Your task to perform on an android device: turn off data saver in the chrome app Image 0: 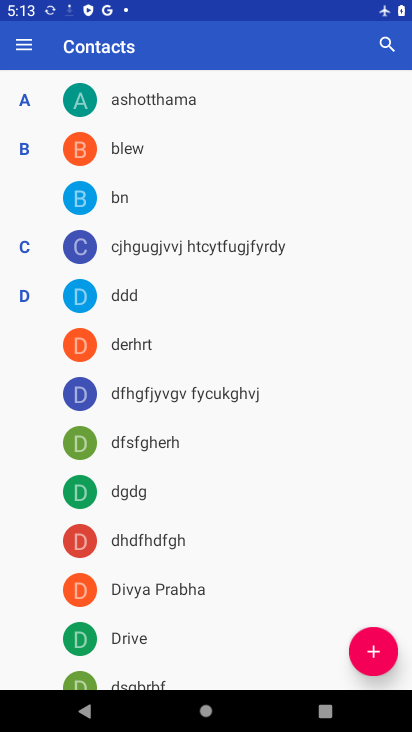
Step 0: press home button
Your task to perform on an android device: turn off data saver in the chrome app Image 1: 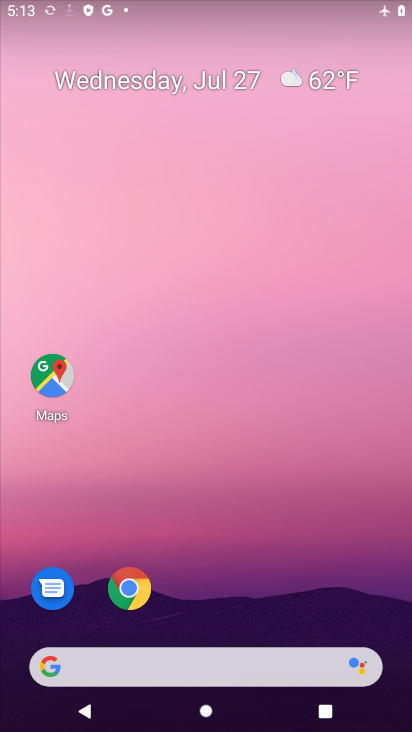
Step 1: click (189, 40)
Your task to perform on an android device: turn off data saver in the chrome app Image 2: 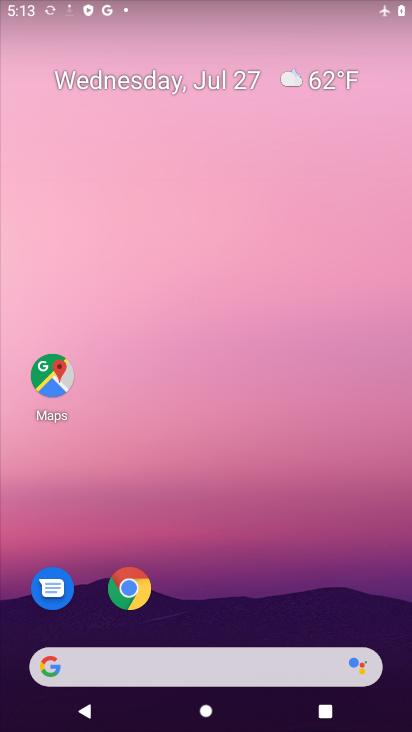
Step 2: click (138, 589)
Your task to perform on an android device: turn off data saver in the chrome app Image 3: 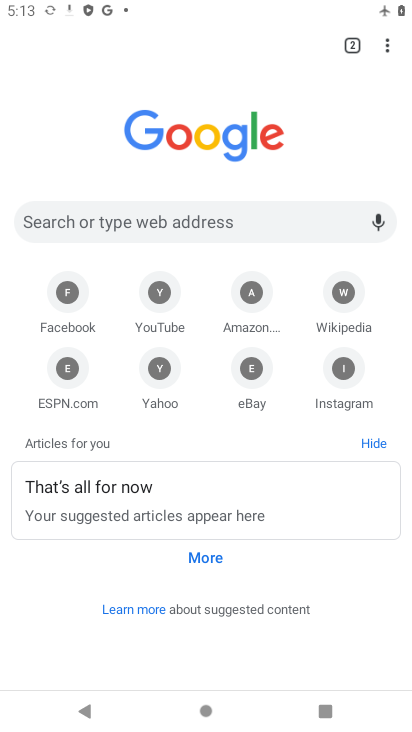
Step 3: click (384, 48)
Your task to perform on an android device: turn off data saver in the chrome app Image 4: 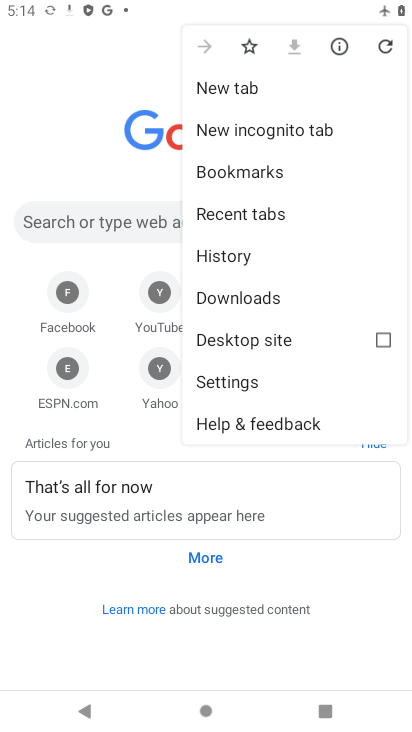
Step 4: click (229, 381)
Your task to perform on an android device: turn off data saver in the chrome app Image 5: 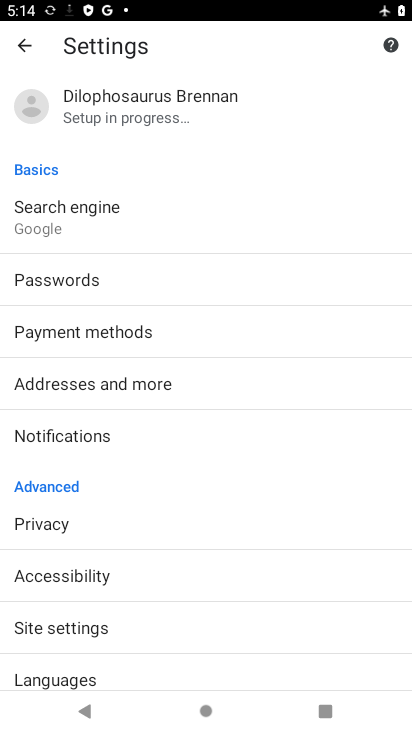
Step 5: click (64, 621)
Your task to perform on an android device: turn off data saver in the chrome app Image 6: 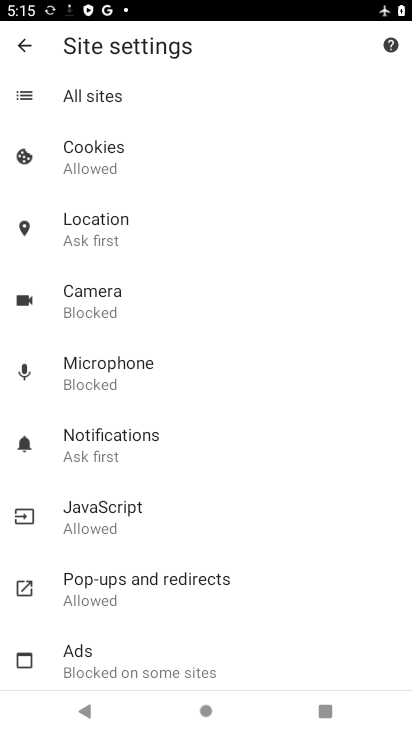
Step 6: drag from (111, 591) to (189, 317)
Your task to perform on an android device: turn off data saver in the chrome app Image 7: 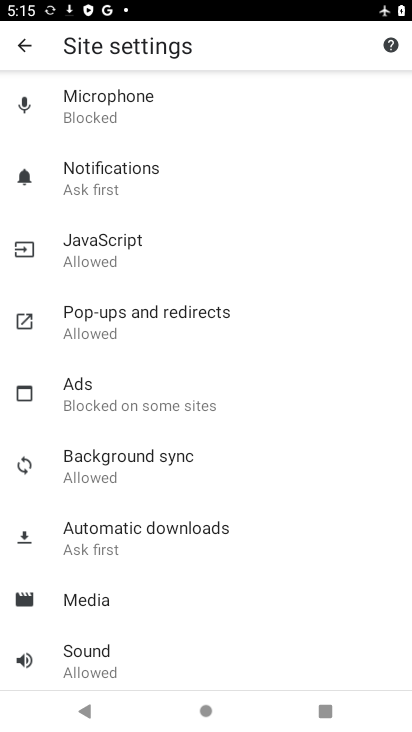
Step 7: drag from (138, 529) to (167, 274)
Your task to perform on an android device: turn off data saver in the chrome app Image 8: 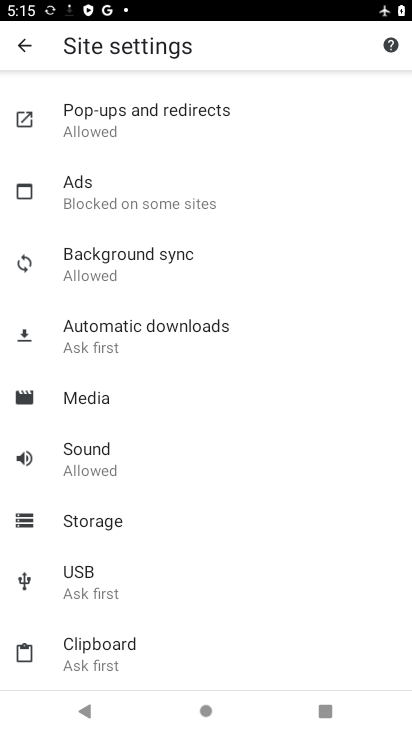
Step 8: drag from (167, 584) to (195, 301)
Your task to perform on an android device: turn off data saver in the chrome app Image 9: 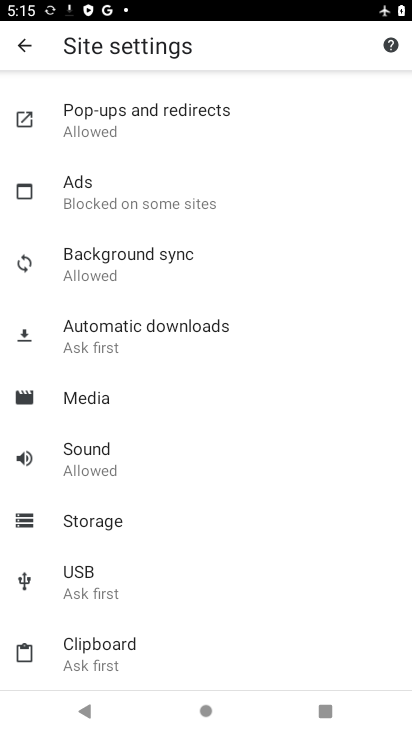
Step 9: drag from (200, 320) to (179, 685)
Your task to perform on an android device: turn off data saver in the chrome app Image 10: 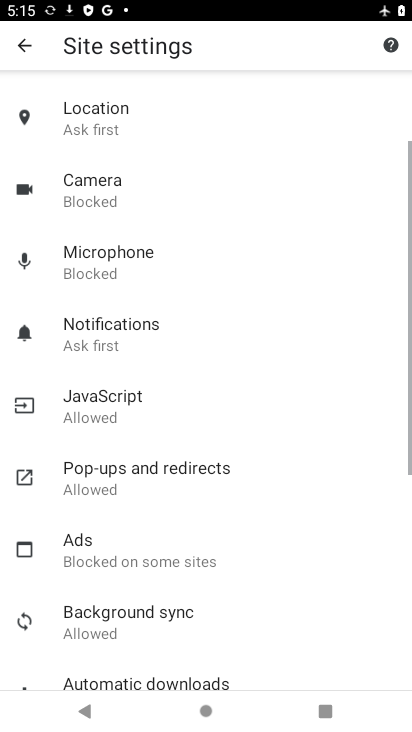
Step 10: drag from (177, 270) to (154, 696)
Your task to perform on an android device: turn off data saver in the chrome app Image 11: 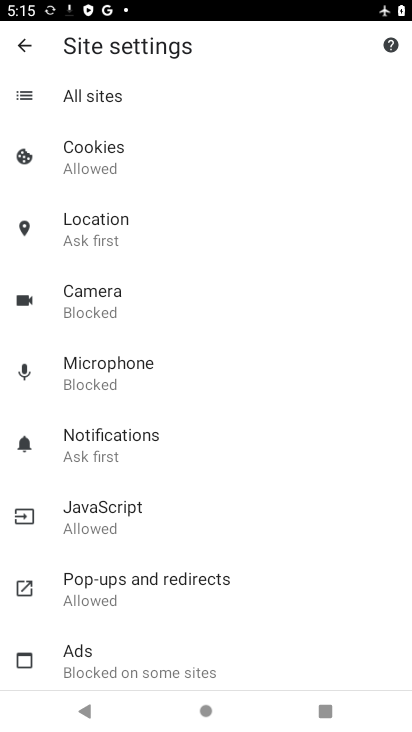
Step 11: click (22, 41)
Your task to perform on an android device: turn off data saver in the chrome app Image 12: 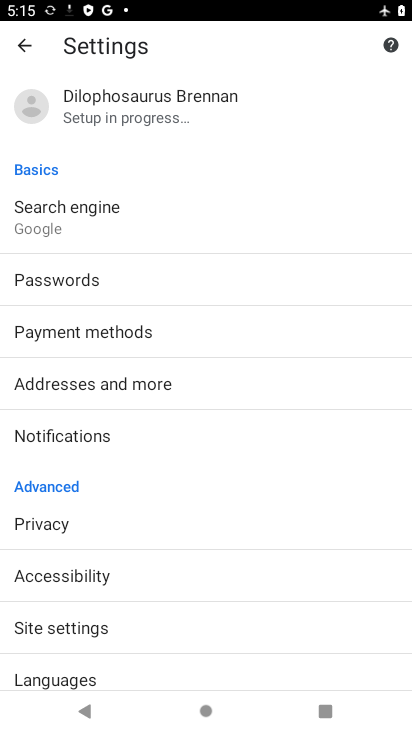
Step 12: drag from (184, 483) to (252, 113)
Your task to perform on an android device: turn off data saver in the chrome app Image 13: 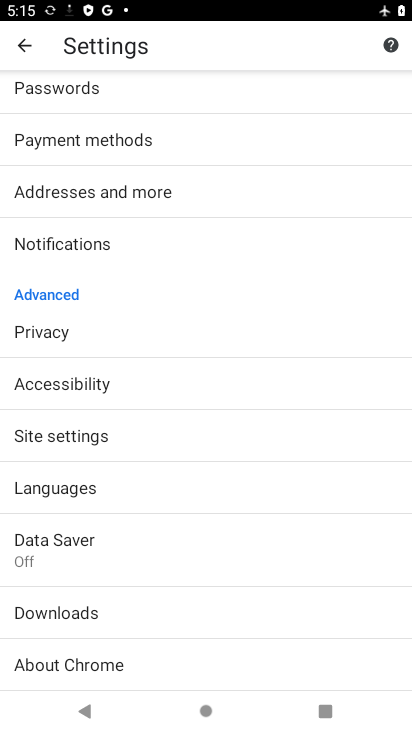
Step 13: click (45, 545)
Your task to perform on an android device: turn off data saver in the chrome app Image 14: 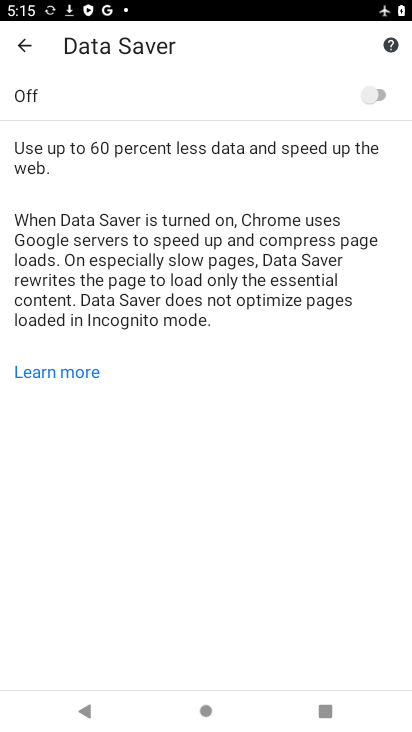
Step 14: task complete